Your task to perform on an android device: Open CNN.com Image 0: 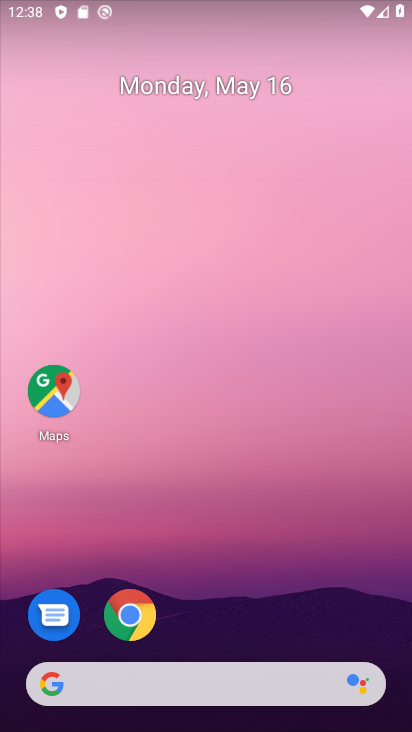
Step 0: click (149, 687)
Your task to perform on an android device: Open CNN.com Image 1: 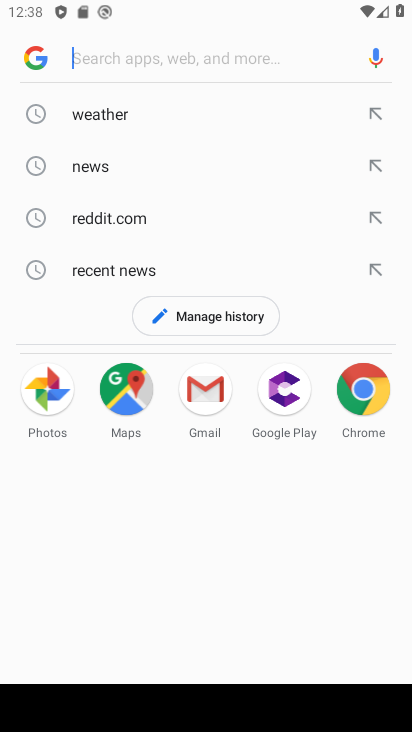
Step 1: type "cnn.com"
Your task to perform on an android device: Open CNN.com Image 2: 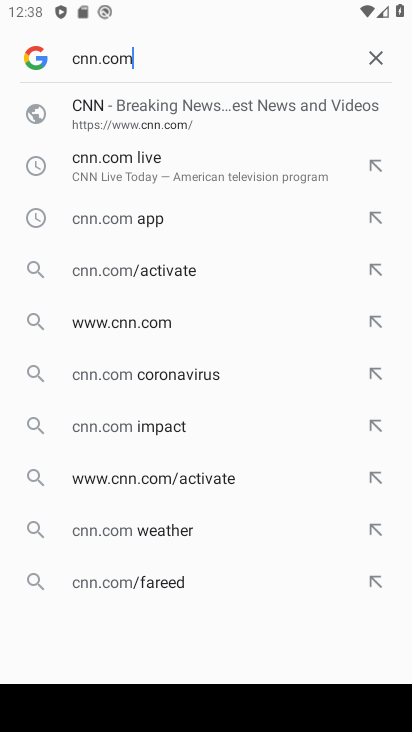
Step 2: click (284, 102)
Your task to perform on an android device: Open CNN.com Image 3: 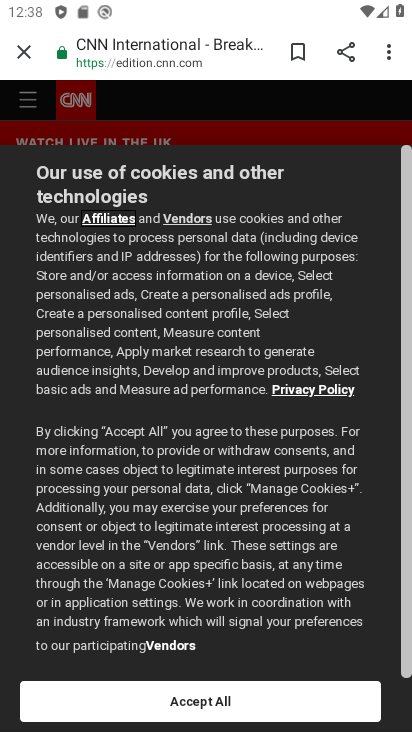
Step 3: task complete